Your task to perform on an android device: turn notification dots on Image 0: 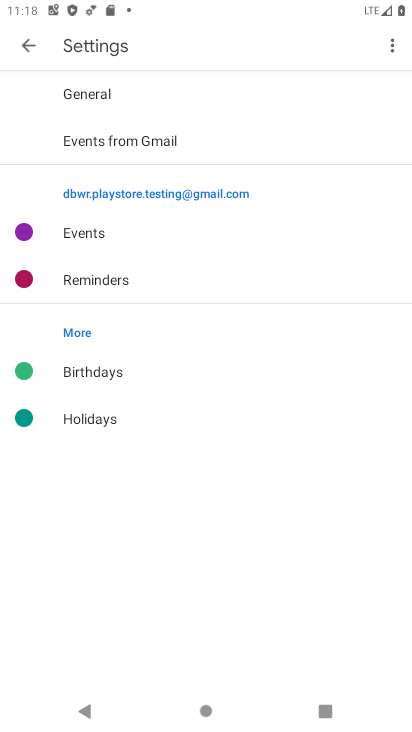
Step 0: press home button
Your task to perform on an android device: turn notification dots on Image 1: 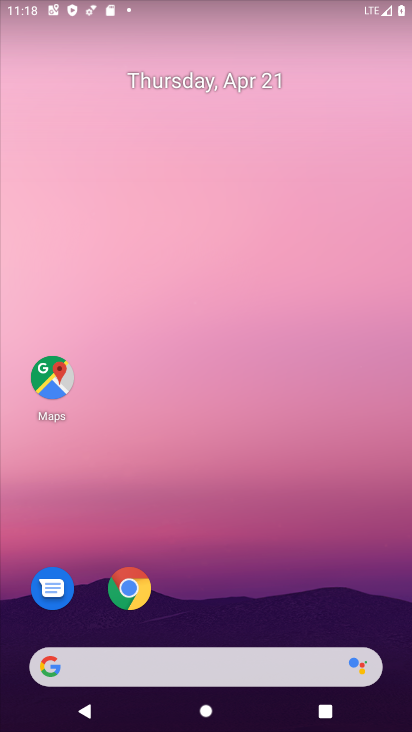
Step 1: drag from (157, 687) to (195, 123)
Your task to perform on an android device: turn notification dots on Image 2: 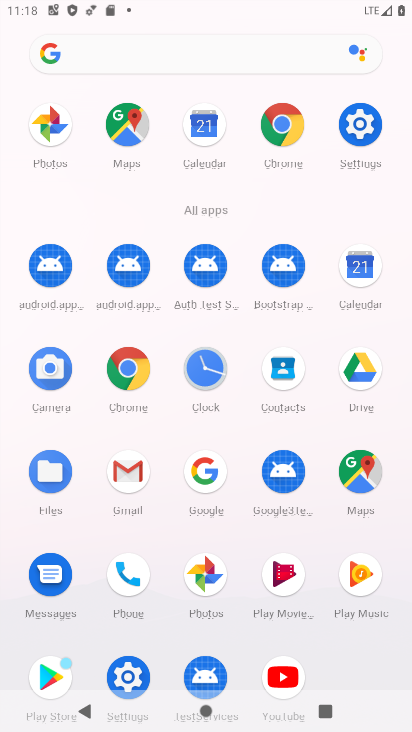
Step 2: click (351, 142)
Your task to perform on an android device: turn notification dots on Image 3: 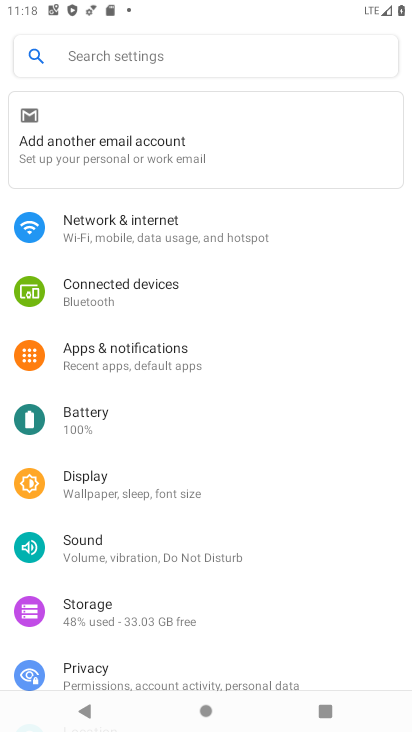
Step 3: click (131, 53)
Your task to perform on an android device: turn notification dots on Image 4: 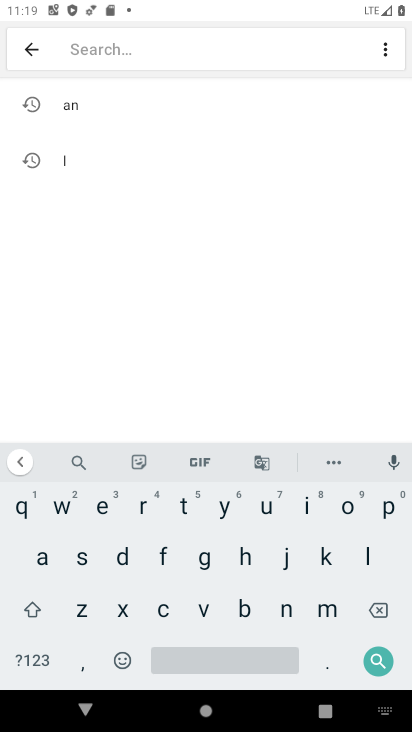
Step 4: click (119, 558)
Your task to perform on an android device: turn notification dots on Image 5: 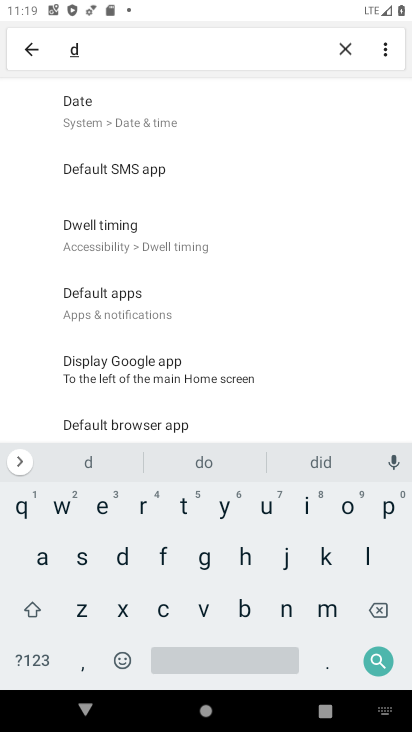
Step 5: click (343, 513)
Your task to perform on an android device: turn notification dots on Image 6: 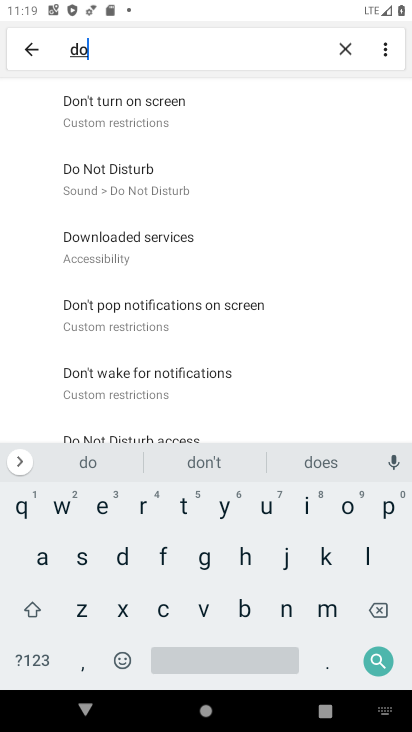
Step 6: click (182, 511)
Your task to perform on an android device: turn notification dots on Image 7: 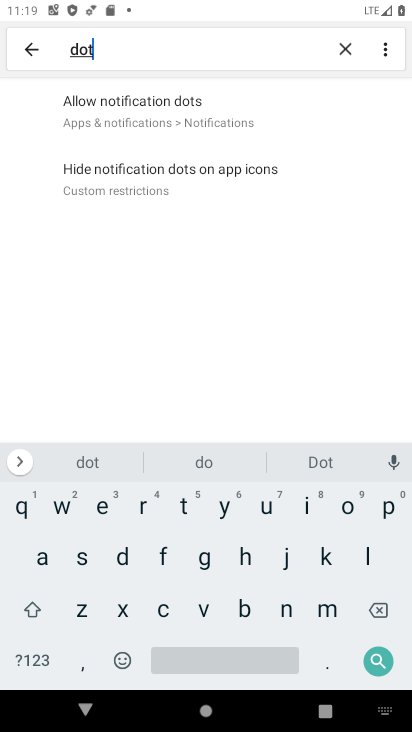
Step 7: click (160, 119)
Your task to perform on an android device: turn notification dots on Image 8: 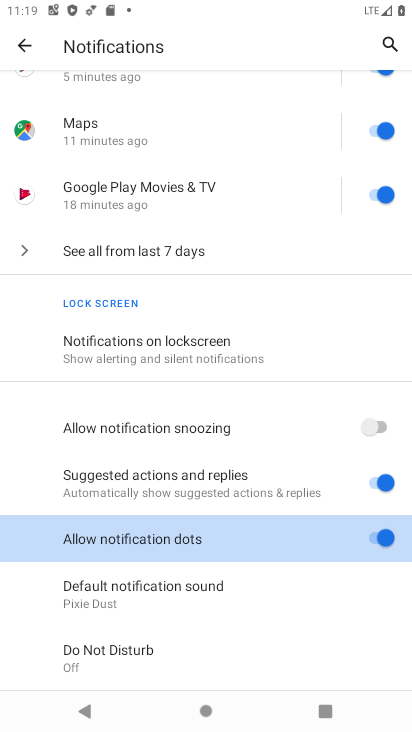
Step 8: click (148, 550)
Your task to perform on an android device: turn notification dots on Image 9: 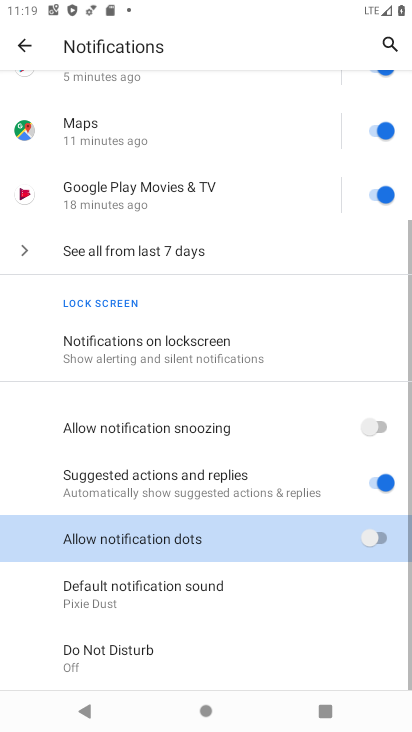
Step 9: click (148, 550)
Your task to perform on an android device: turn notification dots on Image 10: 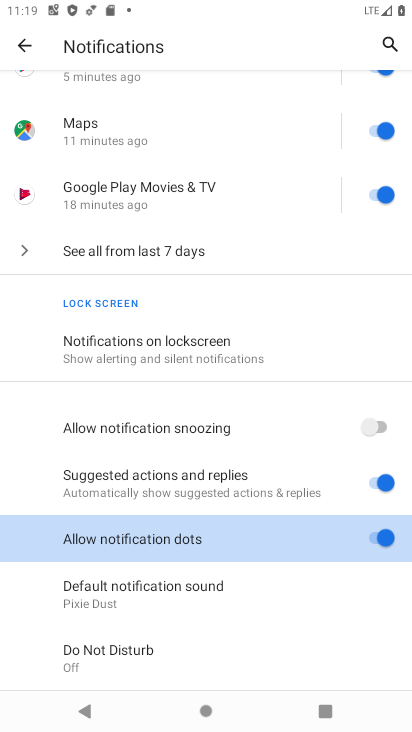
Step 10: task complete